Your task to perform on an android device: Open calendar and show me the third week of next month Image 0: 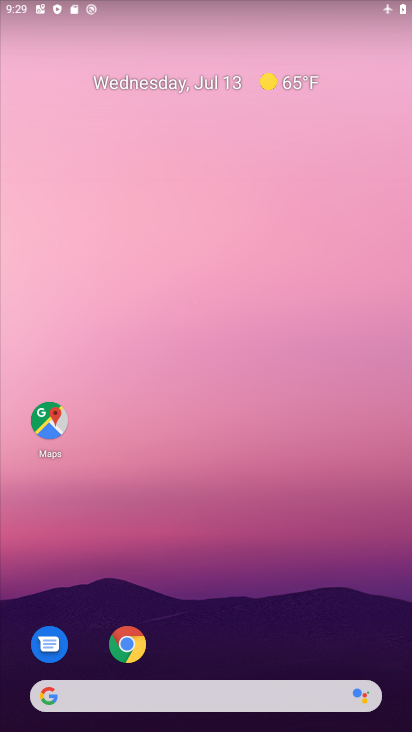
Step 0: drag from (300, 639) to (387, 3)
Your task to perform on an android device: Open calendar and show me the third week of next month Image 1: 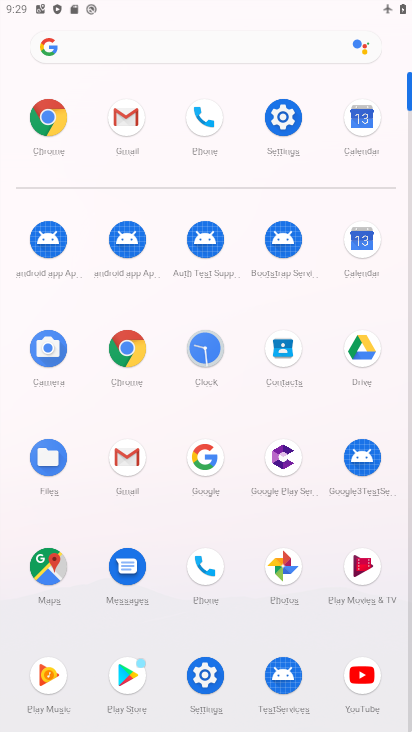
Step 1: click (373, 261)
Your task to perform on an android device: Open calendar and show me the third week of next month Image 2: 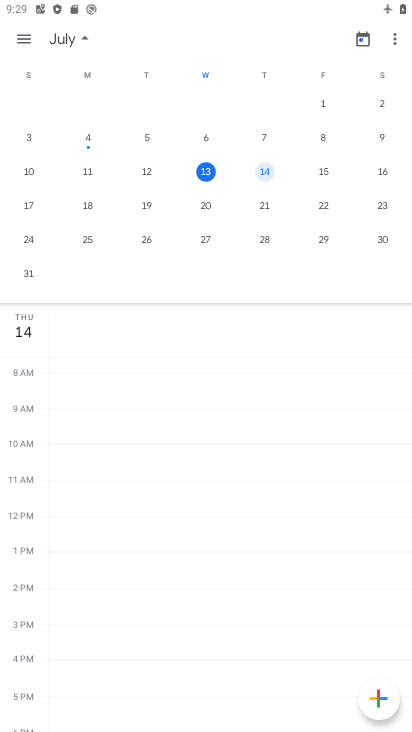
Step 2: drag from (235, 173) to (0, 178)
Your task to perform on an android device: Open calendar and show me the third week of next month Image 3: 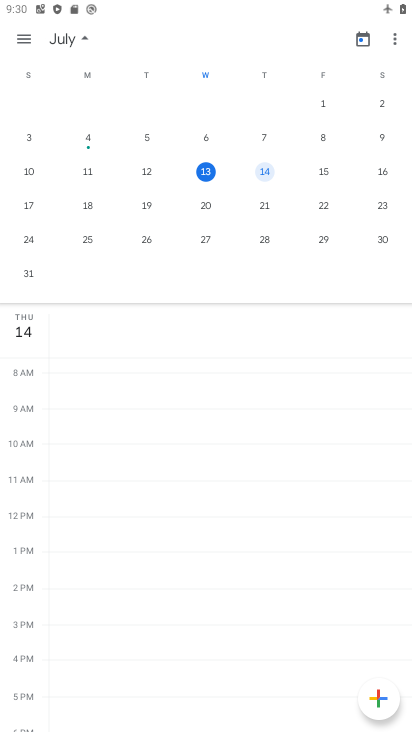
Step 3: click (269, 208)
Your task to perform on an android device: Open calendar and show me the third week of next month Image 4: 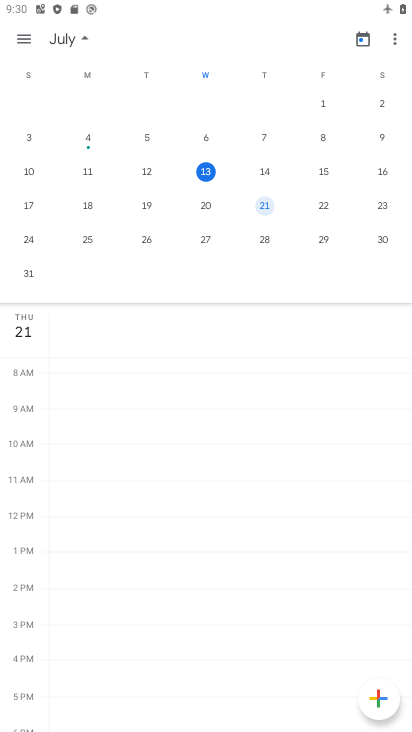
Step 4: task complete